Your task to perform on an android device: Search for "razer blade" on costco.com, select the first entry, and add it to the cart. Image 0: 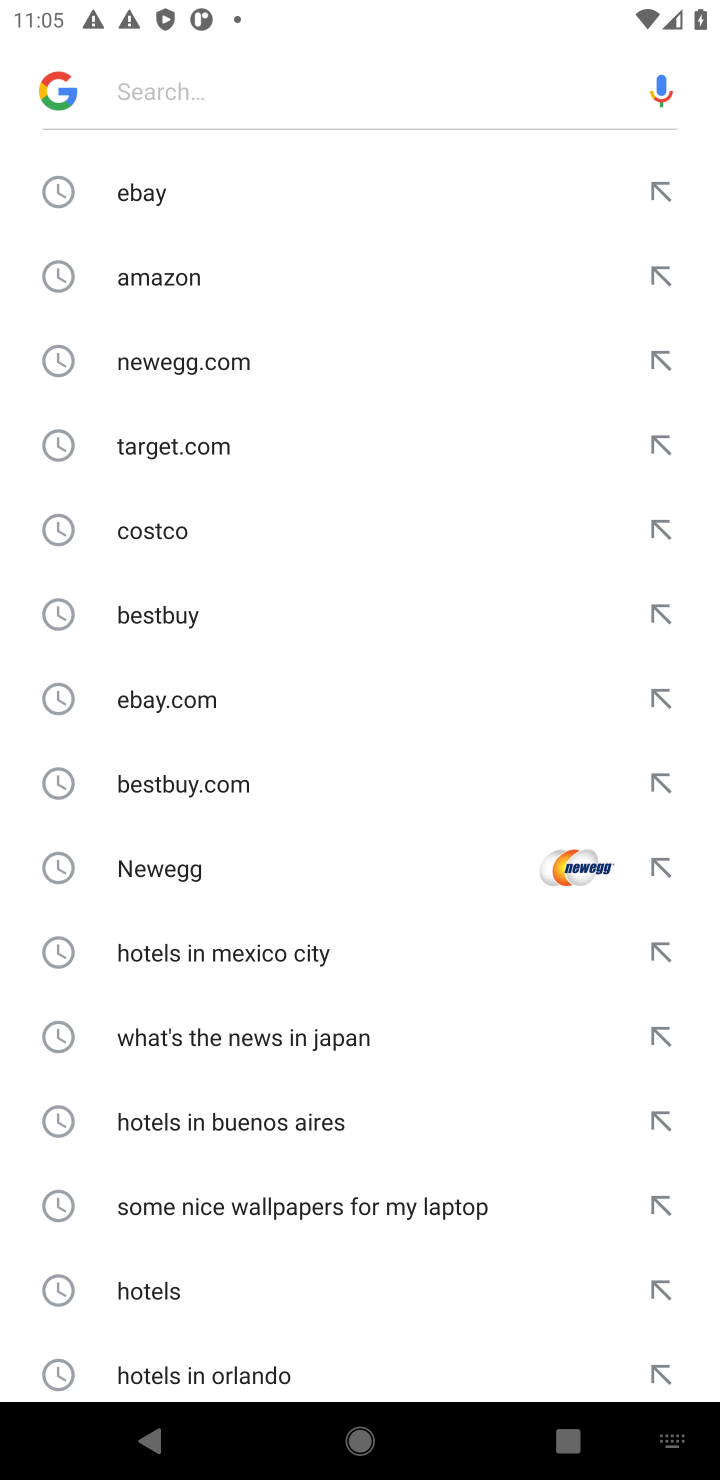
Step 0: click (186, 94)
Your task to perform on an android device: Search for "razer blade" on costco.com, select the first entry, and add it to the cart. Image 1: 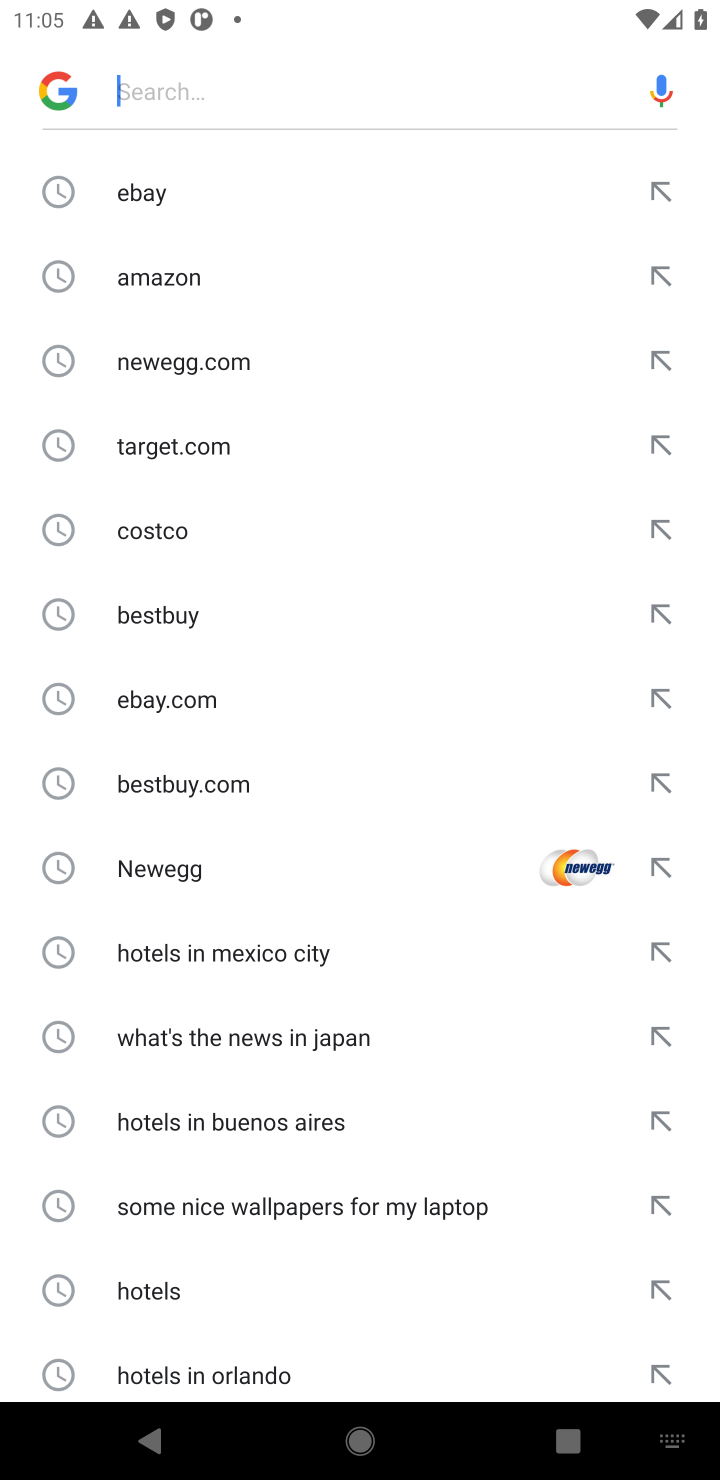
Step 1: type "costco.com"
Your task to perform on an android device: Search for "razer blade" on costco.com, select the first entry, and add it to the cart. Image 2: 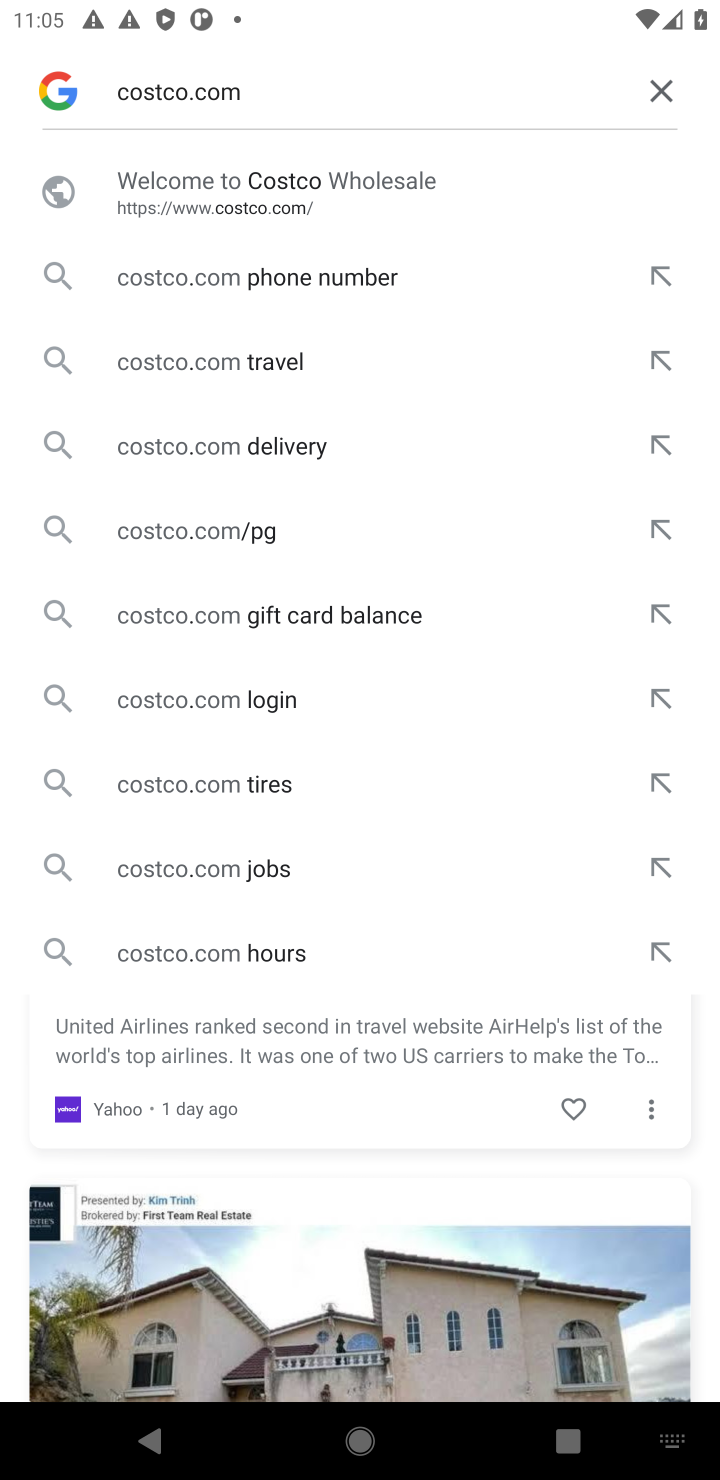
Step 2: click (220, 202)
Your task to perform on an android device: Search for "razer blade" on costco.com, select the first entry, and add it to the cart. Image 3: 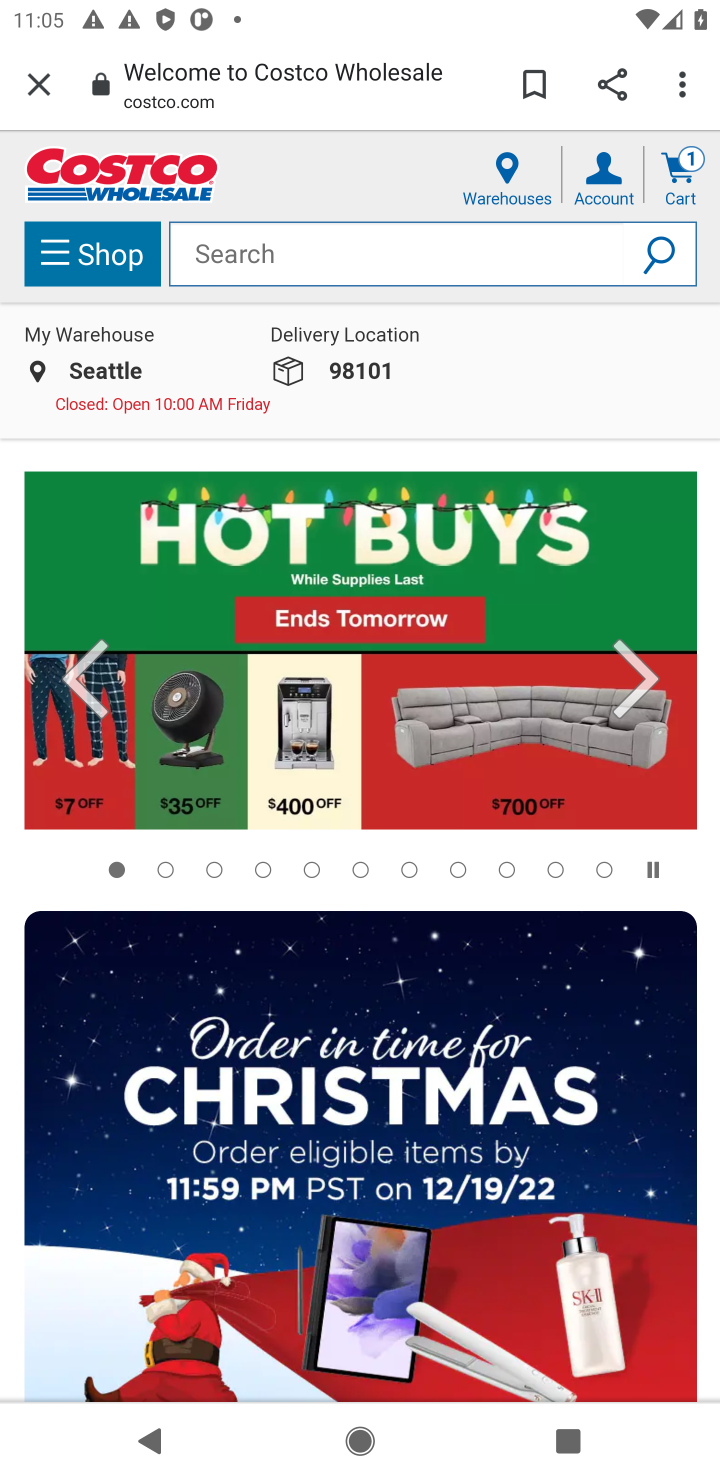
Step 3: click (273, 256)
Your task to perform on an android device: Search for "razer blade" on costco.com, select the first entry, and add it to the cart. Image 4: 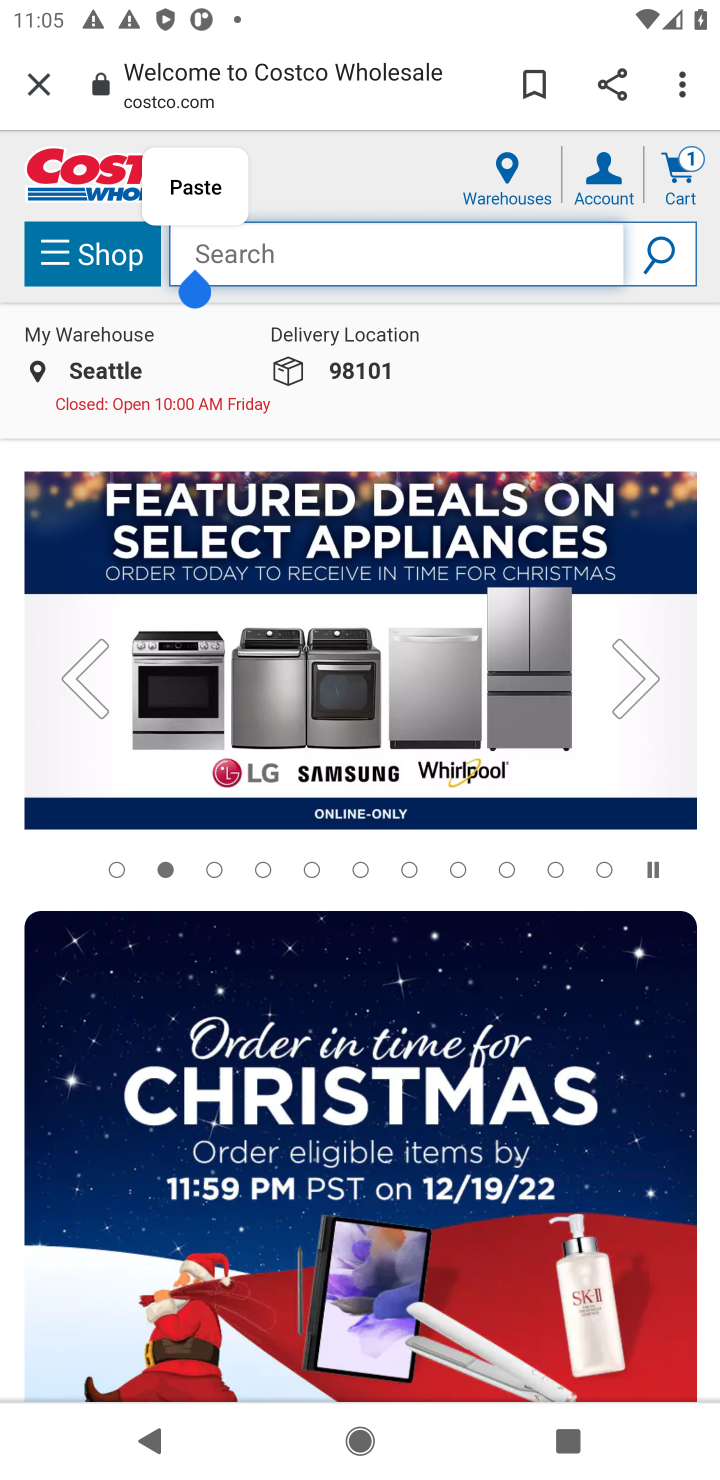
Step 4: type "razer blade"
Your task to perform on an android device: Search for "razer blade" on costco.com, select the first entry, and add it to the cart. Image 5: 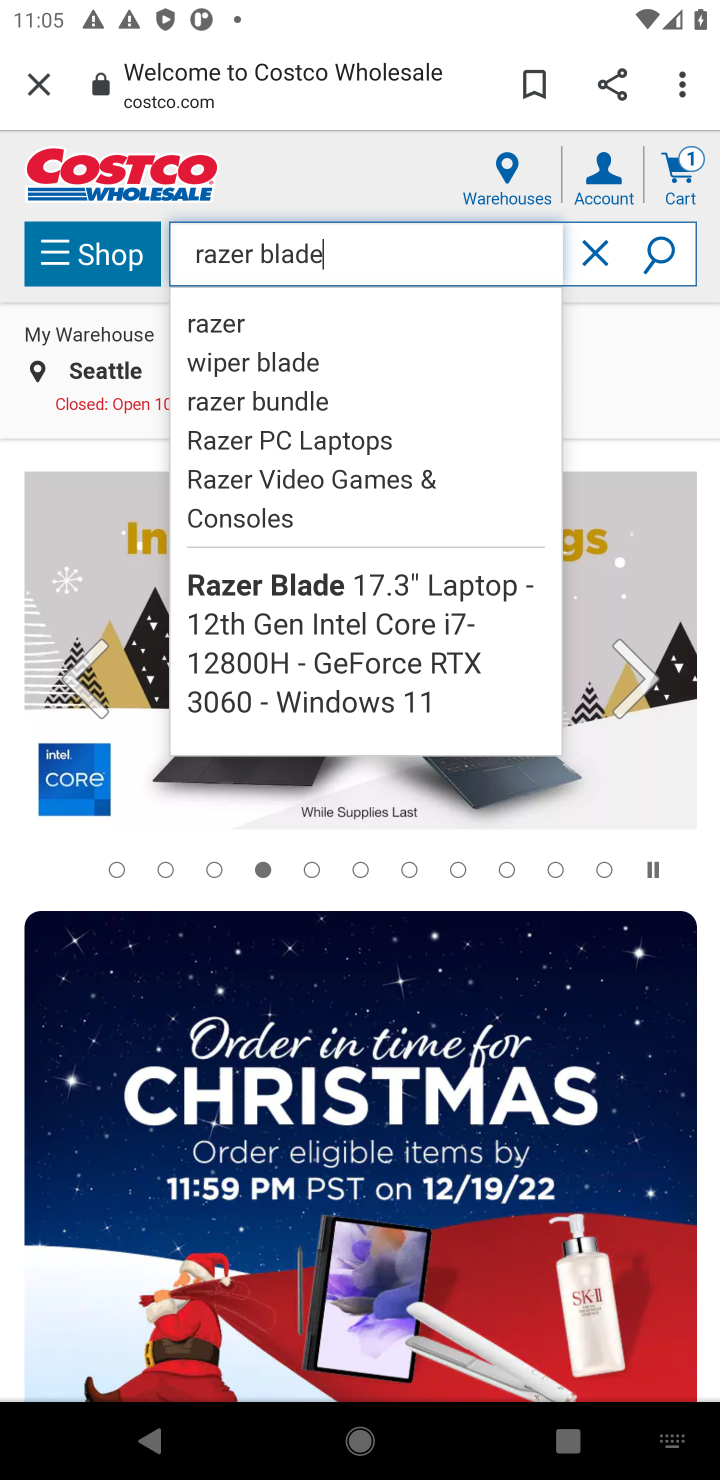
Step 5: click (650, 255)
Your task to perform on an android device: Search for "razer blade" on costco.com, select the first entry, and add it to the cart. Image 6: 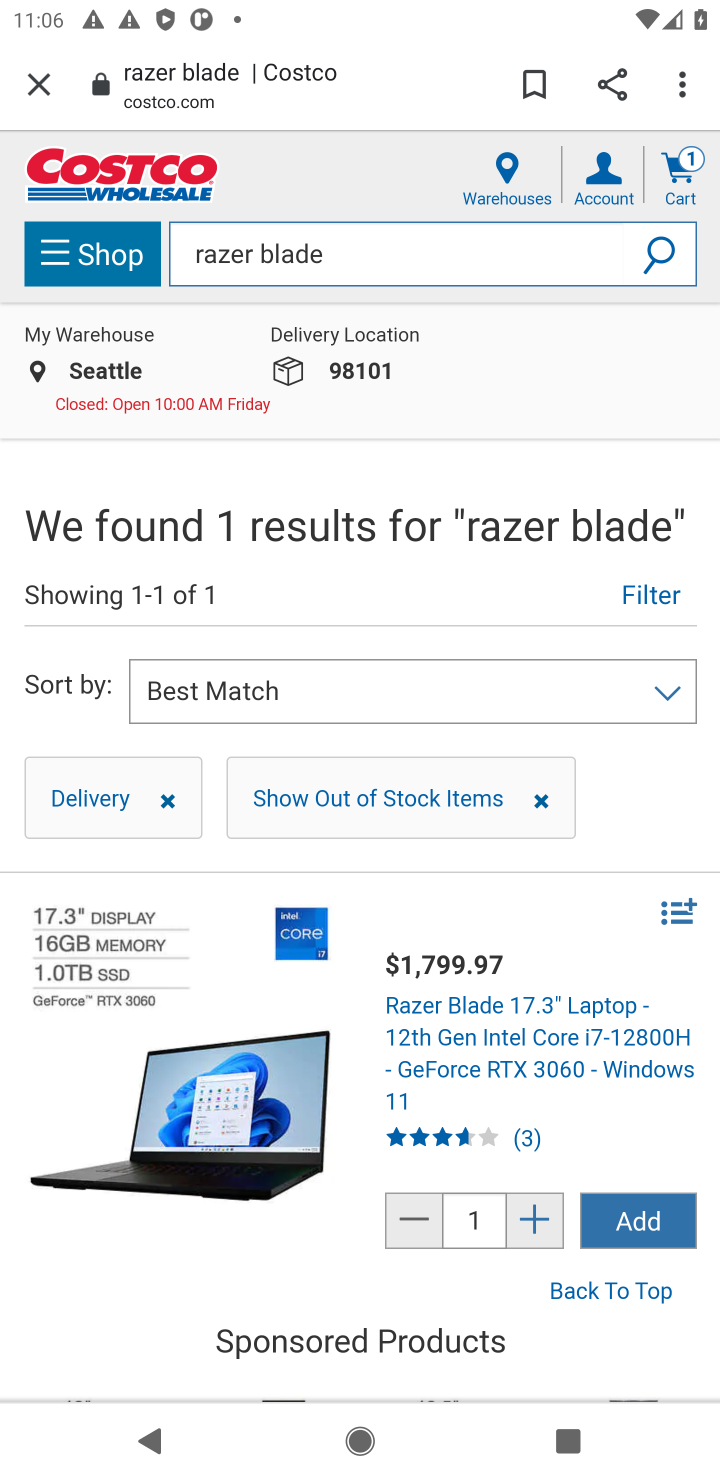
Step 6: click (639, 1229)
Your task to perform on an android device: Search for "razer blade" on costco.com, select the first entry, and add it to the cart. Image 7: 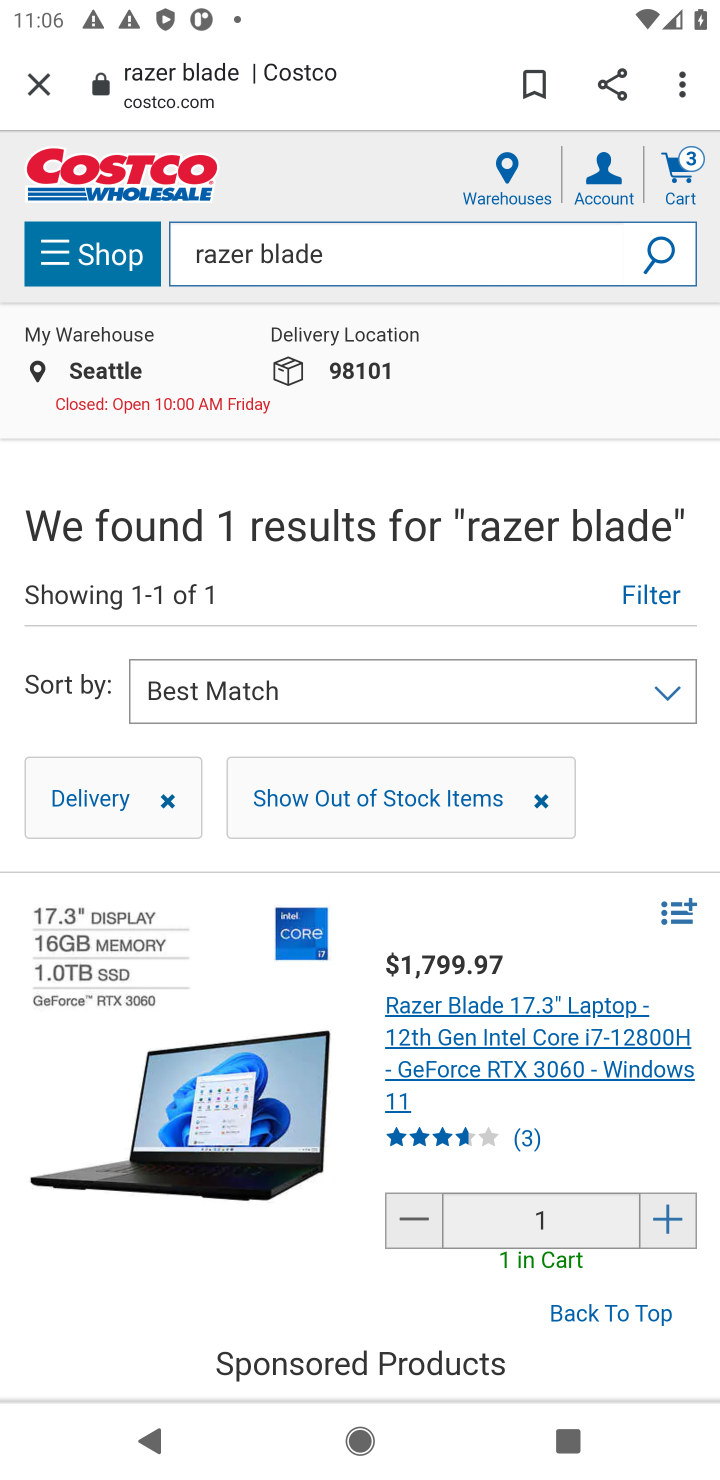
Step 7: task complete